Your task to perform on an android device: add a label to a message in the gmail app Image 0: 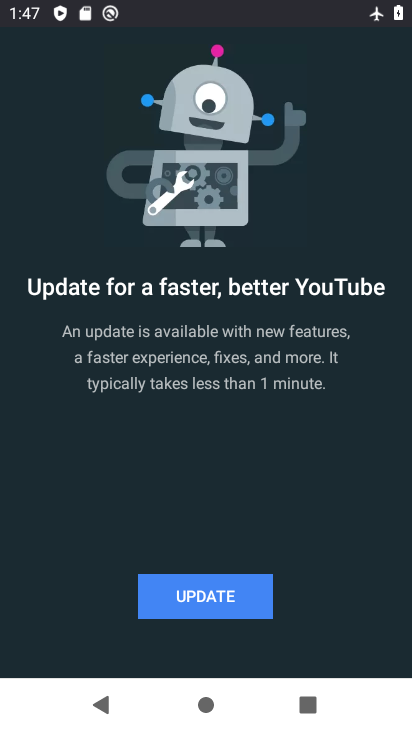
Step 0: press home button
Your task to perform on an android device: add a label to a message in the gmail app Image 1: 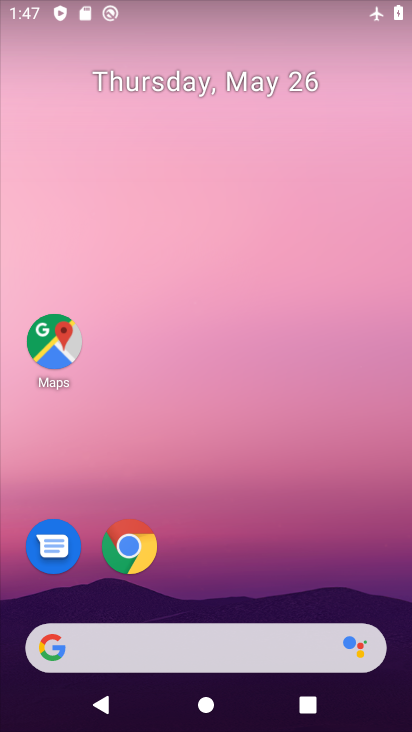
Step 1: drag from (175, 551) to (266, 65)
Your task to perform on an android device: add a label to a message in the gmail app Image 2: 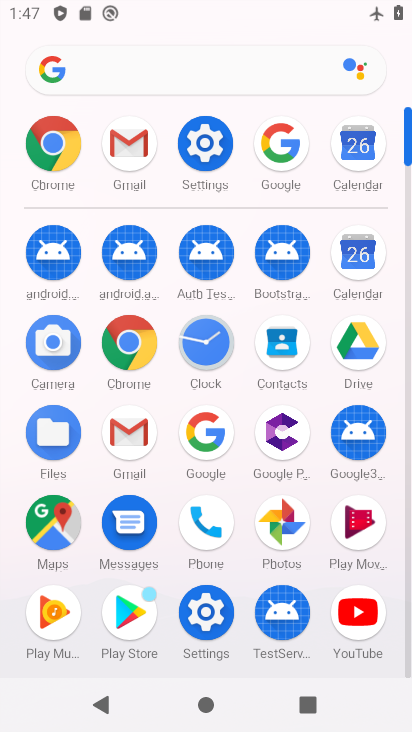
Step 2: click (131, 434)
Your task to perform on an android device: add a label to a message in the gmail app Image 3: 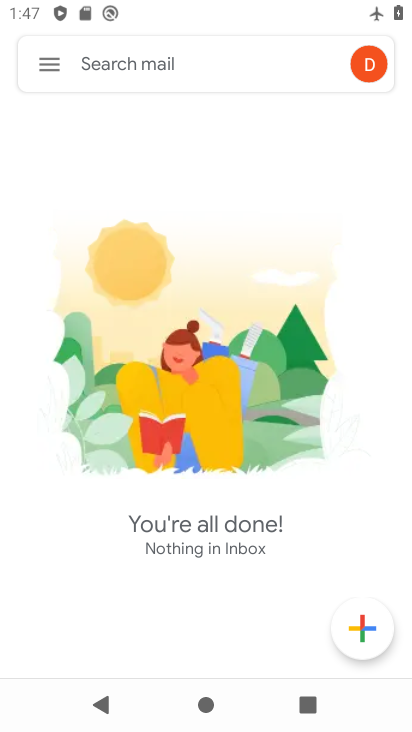
Step 3: click (46, 62)
Your task to perform on an android device: add a label to a message in the gmail app Image 4: 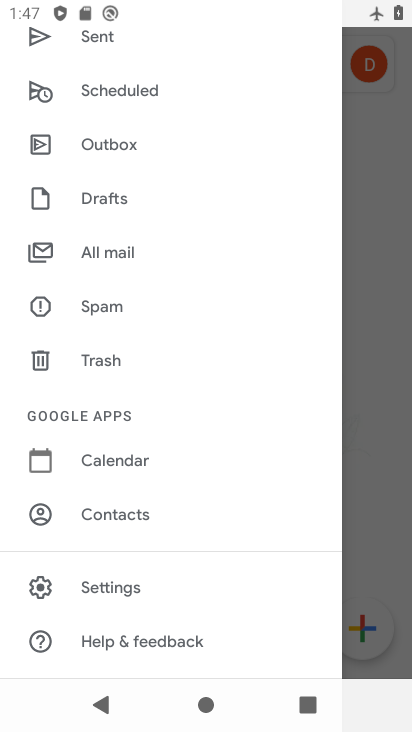
Step 4: click (99, 250)
Your task to perform on an android device: add a label to a message in the gmail app Image 5: 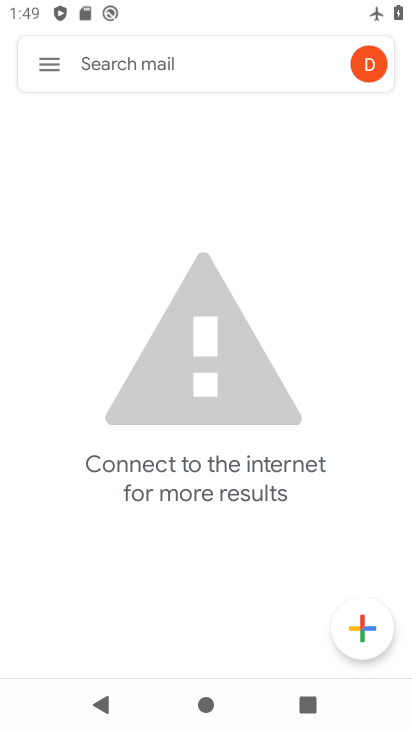
Step 5: task complete